Your task to perform on an android device: Show me the alarms in the clock app Image 0: 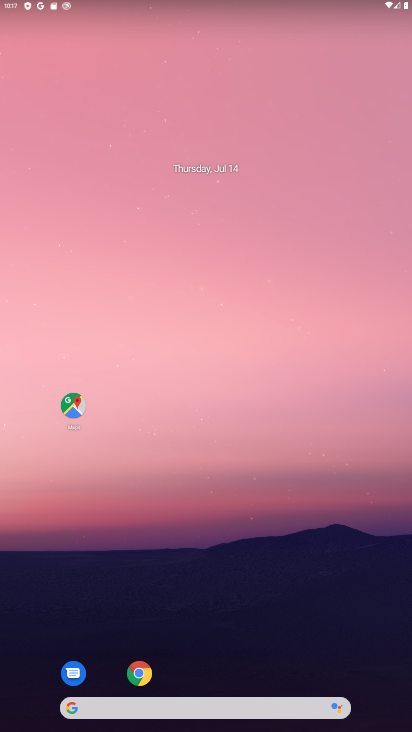
Step 0: drag from (245, 490) to (21, 259)
Your task to perform on an android device: Show me the alarms in the clock app Image 1: 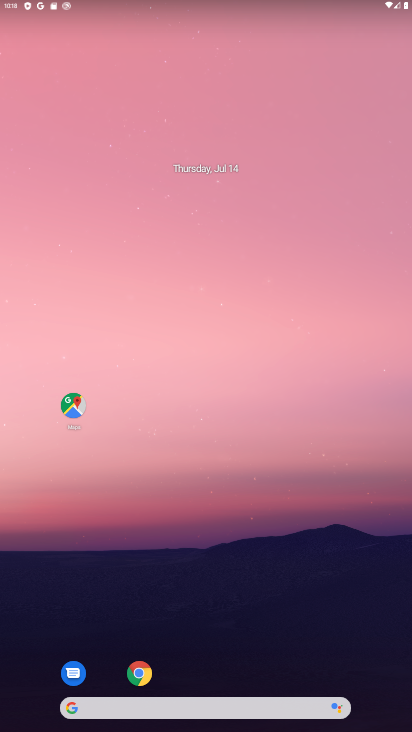
Step 1: drag from (261, 621) to (256, 6)
Your task to perform on an android device: Show me the alarms in the clock app Image 2: 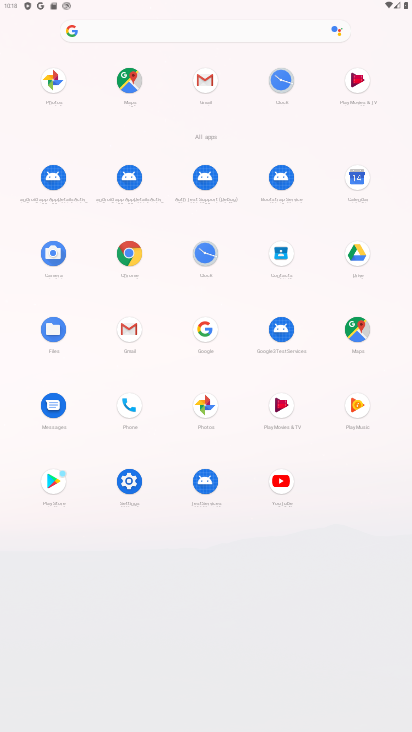
Step 2: click (198, 254)
Your task to perform on an android device: Show me the alarms in the clock app Image 3: 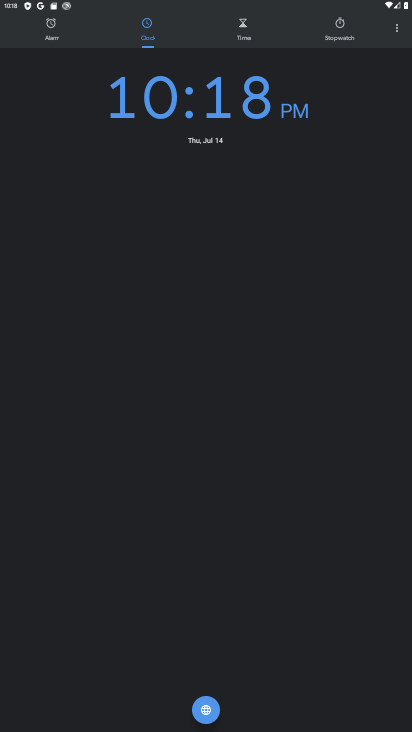
Step 3: click (50, 29)
Your task to perform on an android device: Show me the alarms in the clock app Image 4: 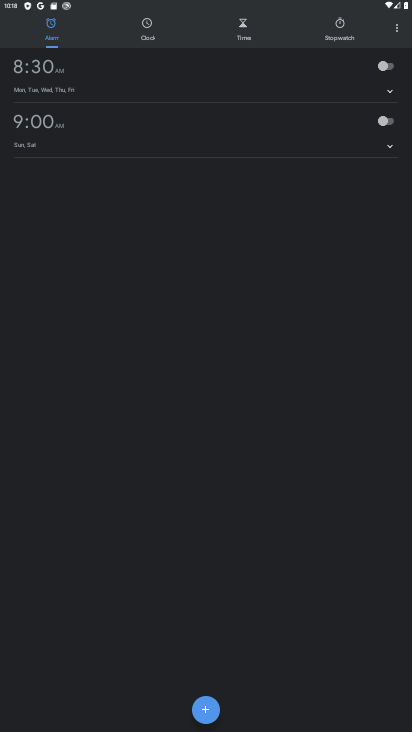
Step 4: task complete